Your task to perform on an android device: all mails in gmail Image 0: 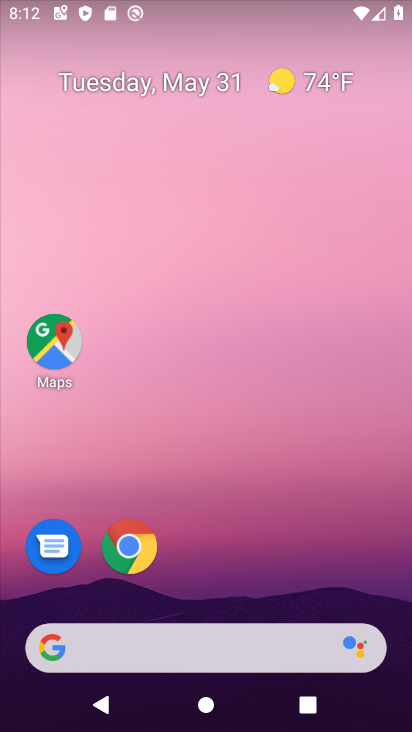
Step 0: drag from (245, 562) to (324, 77)
Your task to perform on an android device: all mails in gmail Image 1: 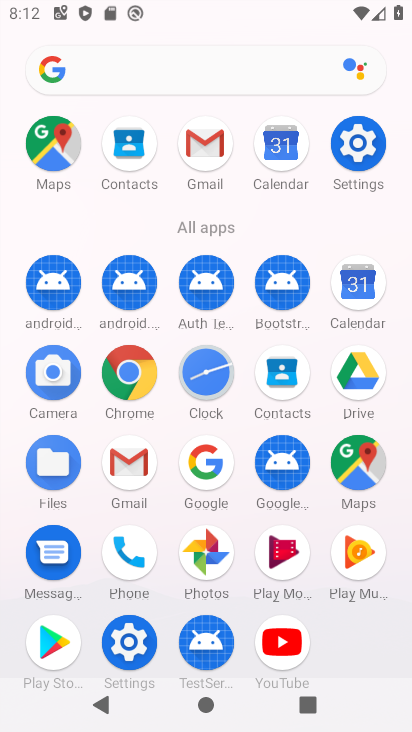
Step 1: click (208, 147)
Your task to perform on an android device: all mails in gmail Image 2: 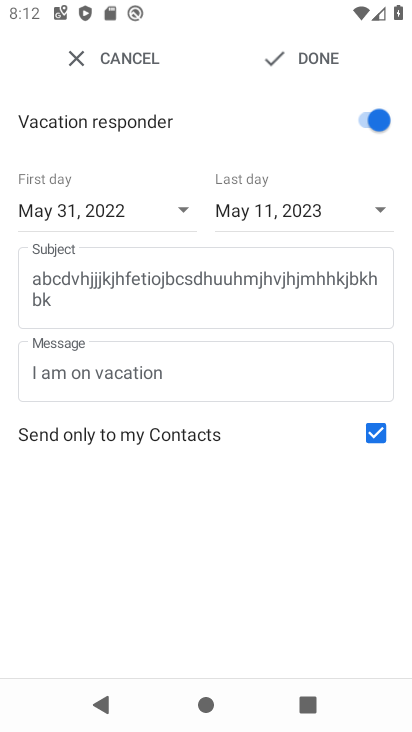
Step 2: press back button
Your task to perform on an android device: all mails in gmail Image 3: 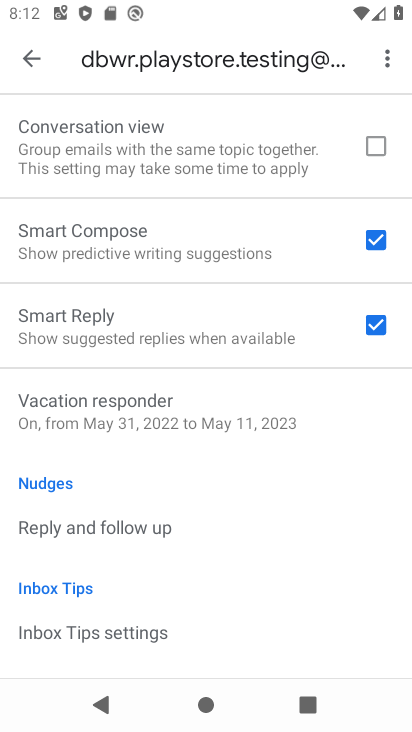
Step 3: press back button
Your task to perform on an android device: all mails in gmail Image 4: 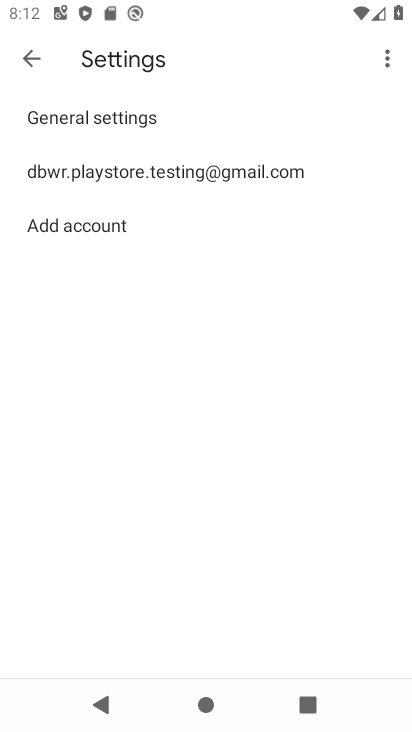
Step 4: press back button
Your task to perform on an android device: all mails in gmail Image 5: 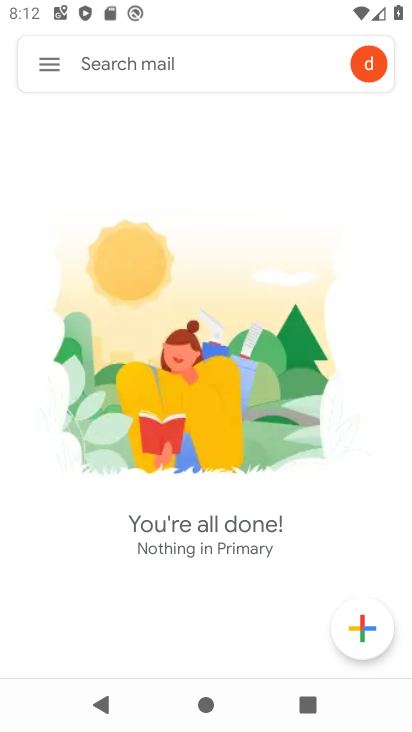
Step 5: click (44, 66)
Your task to perform on an android device: all mails in gmail Image 6: 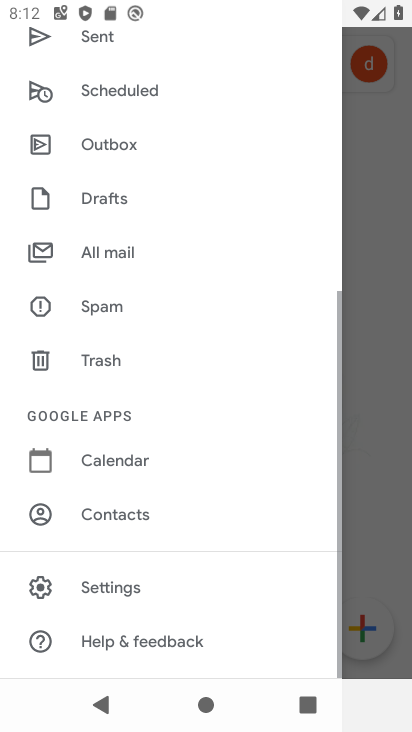
Step 6: click (144, 264)
Your task to perform on an android device: all mails in gmail Image 7: 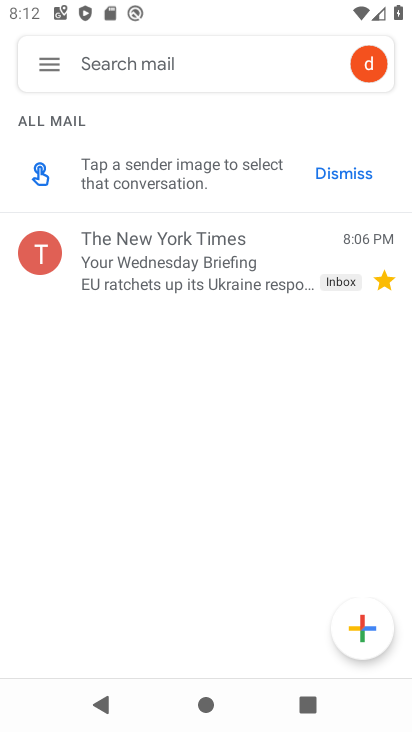
Step 7: task complete